Your task to perform on an android device: Open the web browser Image 0: 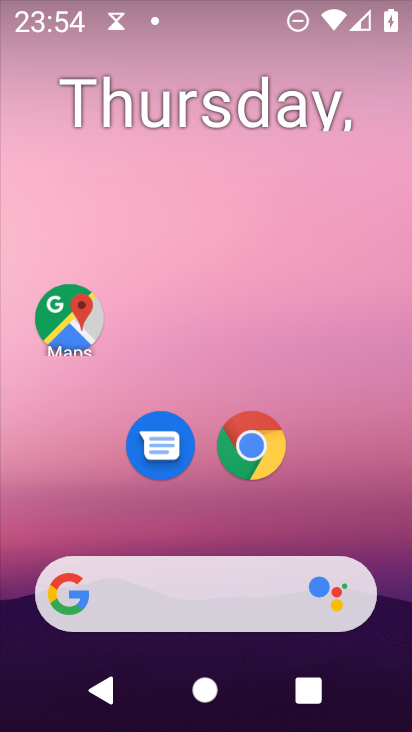
Step 0: click (242, 457)
Your task to perform on an android device: Open the web browser Image 1: 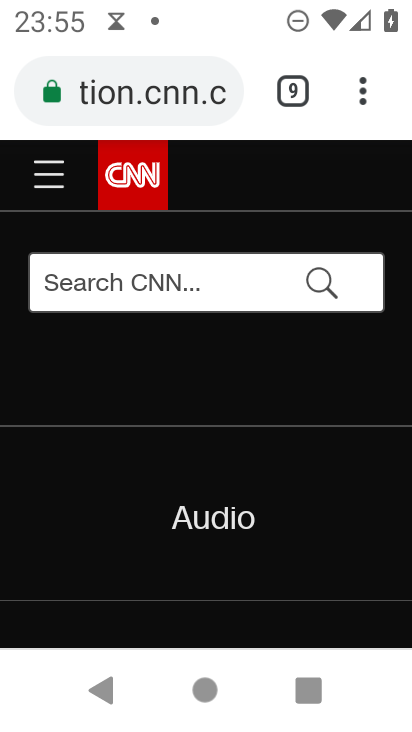
Step 1: task complete